Your task to perform on an android device: Go to display settings Image 0: 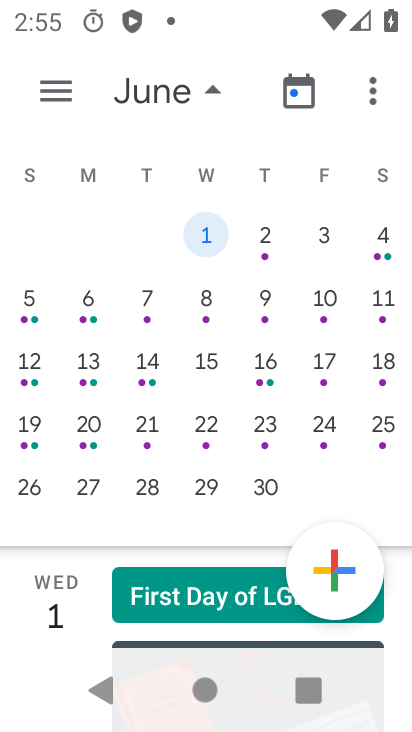
Step 0: press home button
Your task to perform on an android device: Go to display settings Image 1: 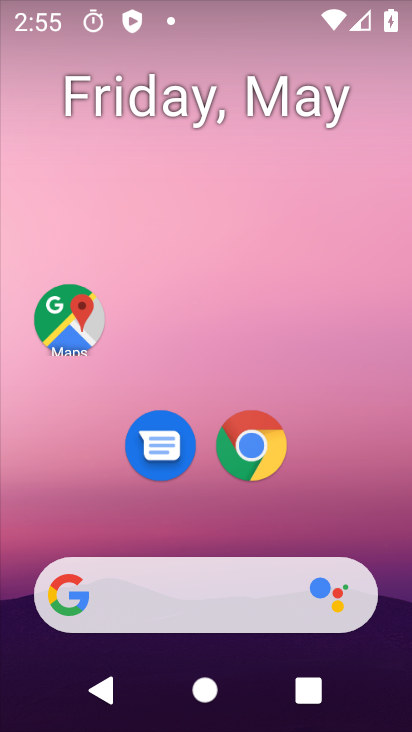
Step 1: drag from (296, 550) to (344, 67)
Your task to perform on an android device: Go to display settings Image 2: 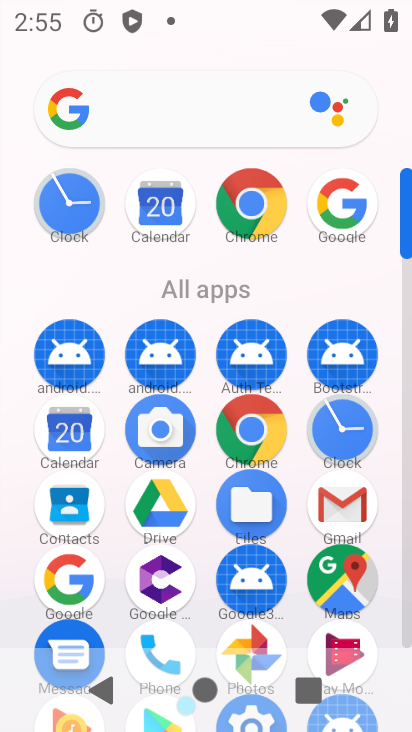
Step 2: drag from (204, 485) to (226, 345)
Your task to perform on an android device: Go to display settings Image 3: 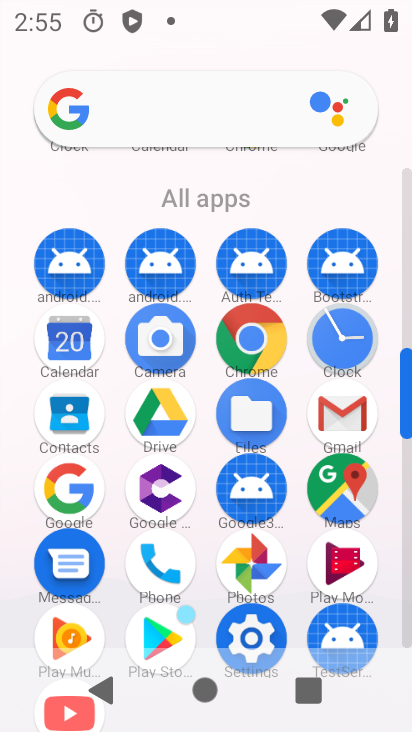
Step 3: drag from (305, 506) to (302, 373)
Your task to perform on an android device: Go to display settings Image 4: 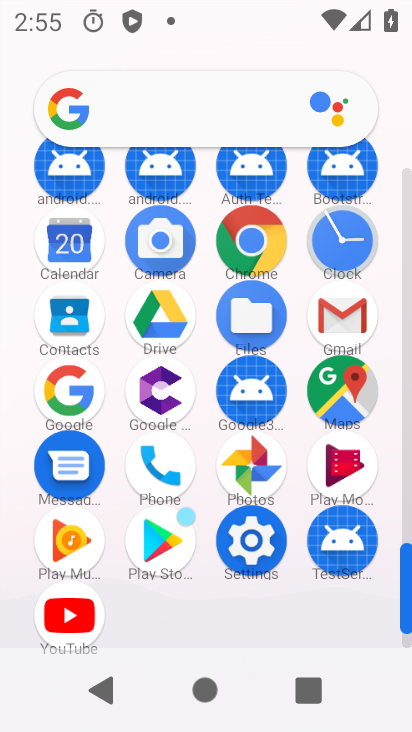
Step 4: click (258, 546)
Your task to perform on an android device: Go to display settings Image 5: 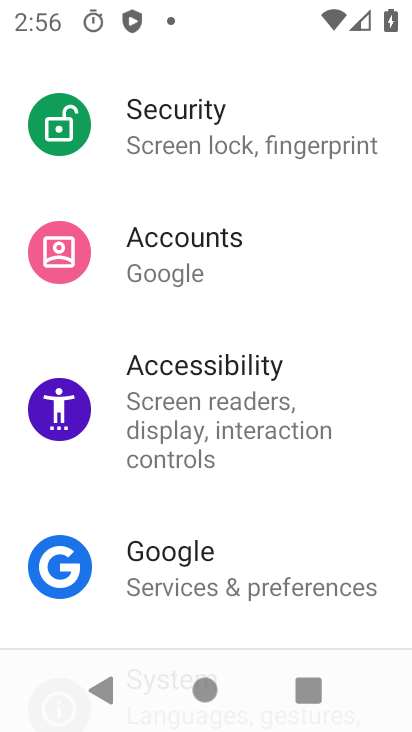
Step 5: drag from (186, 254) to (130, 562)
Your task to perform on an android device: Go to display settings Image 6: 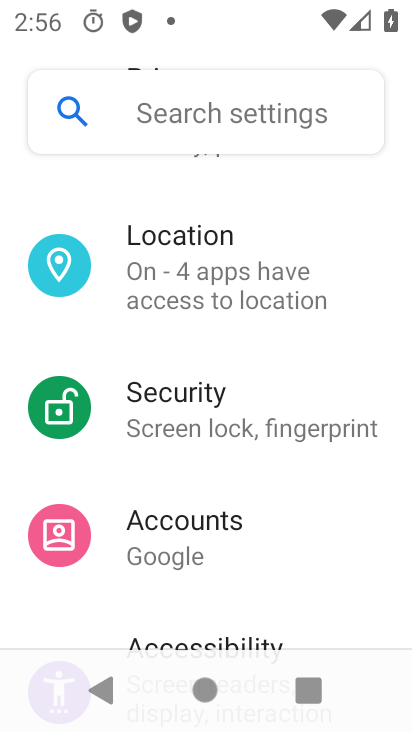
Step 6: drag from (170, 271) to (126, 614)
Your task to perform on an android device: Go to display settings Image 7: 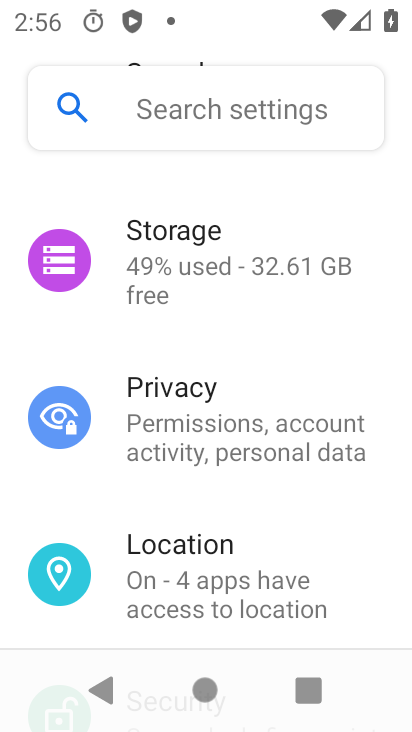
Step 7: drag from (136, 199) to (82, 456)
Your task to perform on an android device: Go to display settings Image 8: 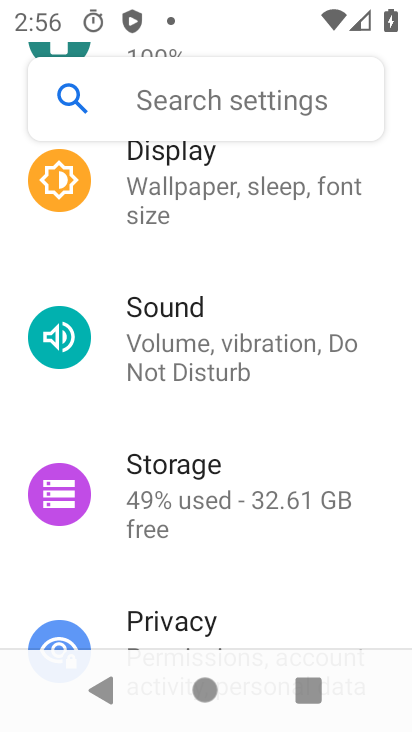
Step 8: click (139, 223)
Your task to perform on an android device: Go to display settings Image 9: 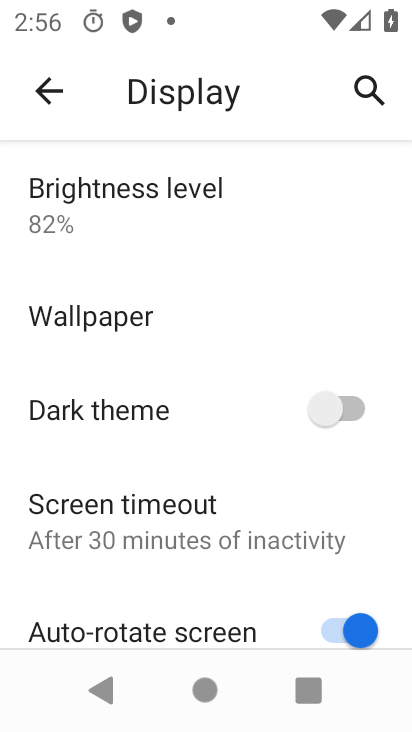
Step 9: task complete